Your task to perform on an android device: Toggle the flashlight Image 0: 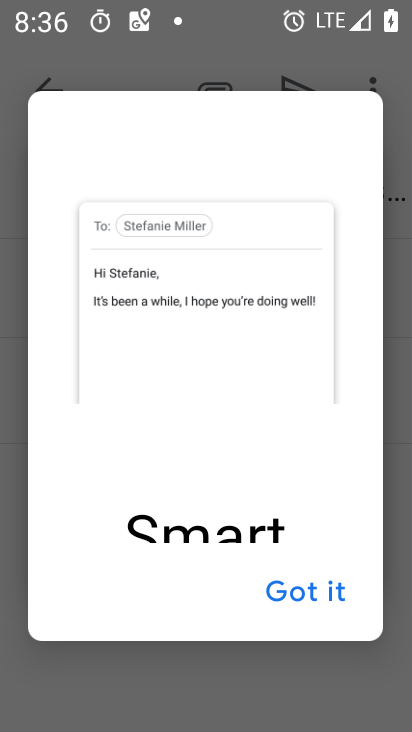
Step 0: press home button
Your task to perform on an android device: Toggle the flashlight Image 1: 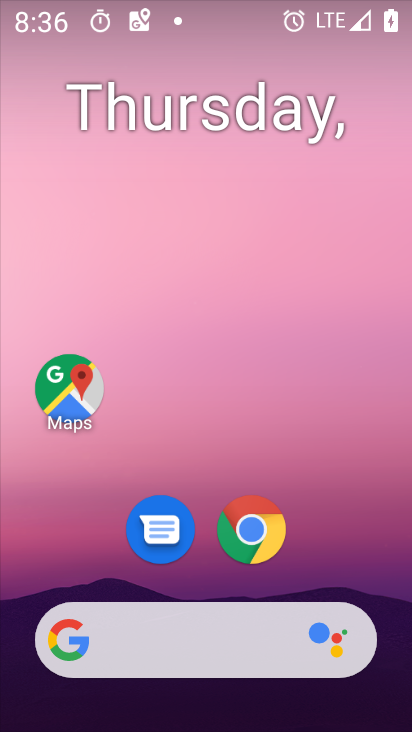
Step 1: drag from (269, 4) to (301, 482)
Your task to perform on an android device: Toggle the flashlight Image 2: 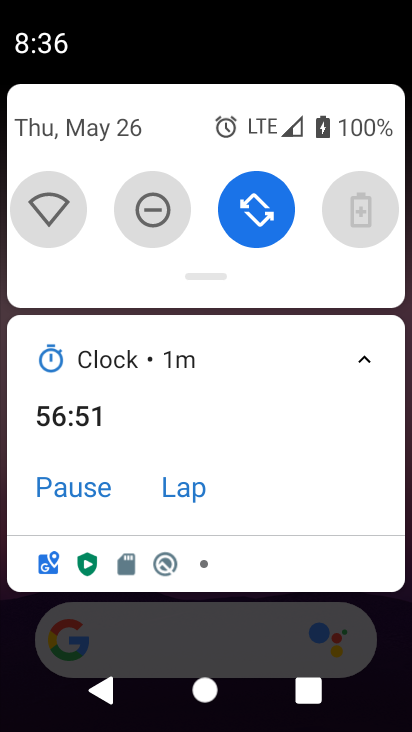
Step 2: drag from (206, 122) to (247, 481)
Your task to perform on an android device: Toggle the flashlight Image 3: 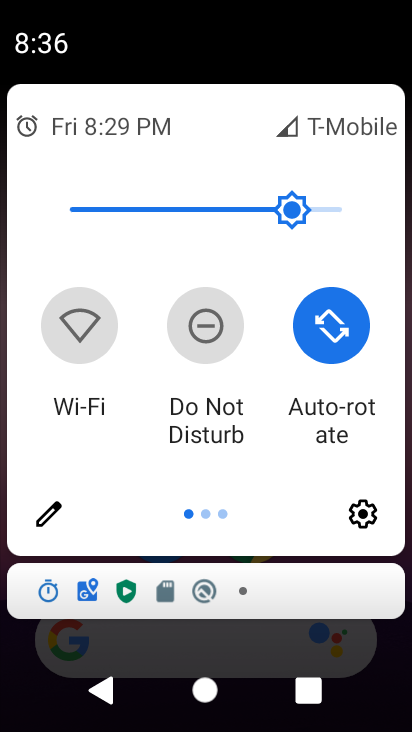
Step 3: click (60, 524)
Your task to perform on an android device: Toggle the flashlight Image 4: 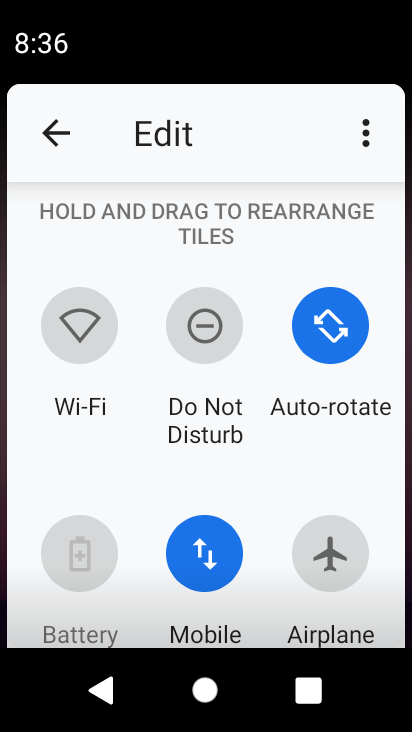
Step 4: task complete